Your task to perform on an android device: install app "Grab" Image 0: 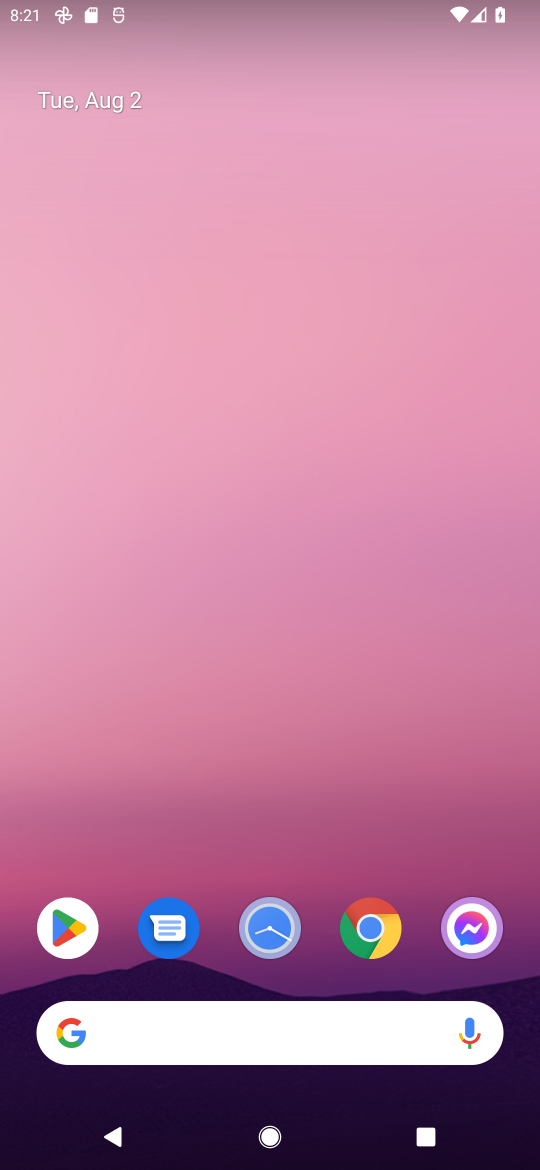
Step 0: click (51, 925)
Your task to perform on an android device: install app "Grab" Image 1: 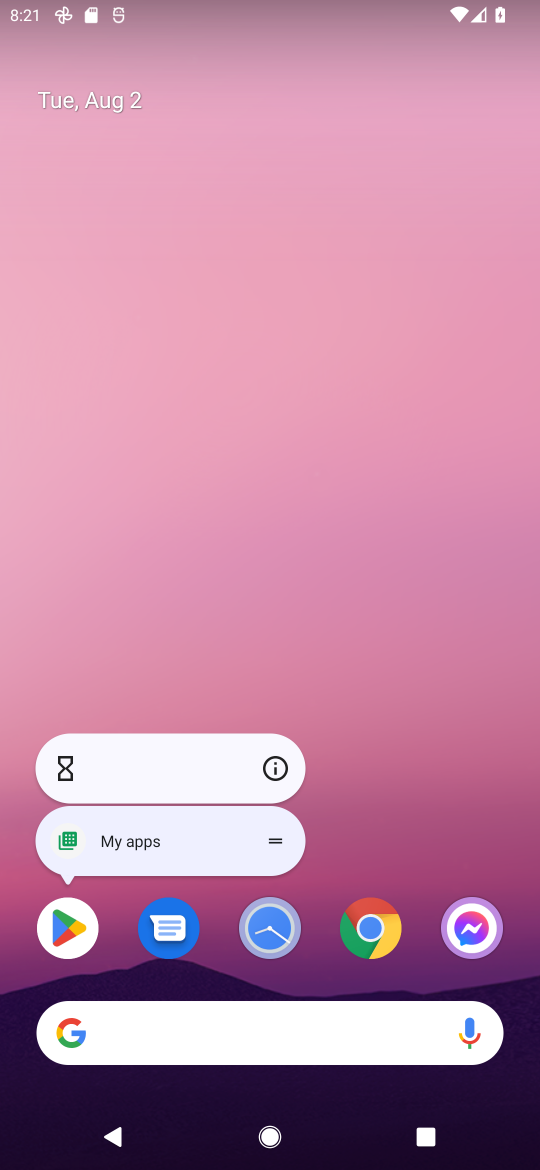
Step 1: click (51, 925)
Your task to perform on an android device: install app "Grab" Image 2: 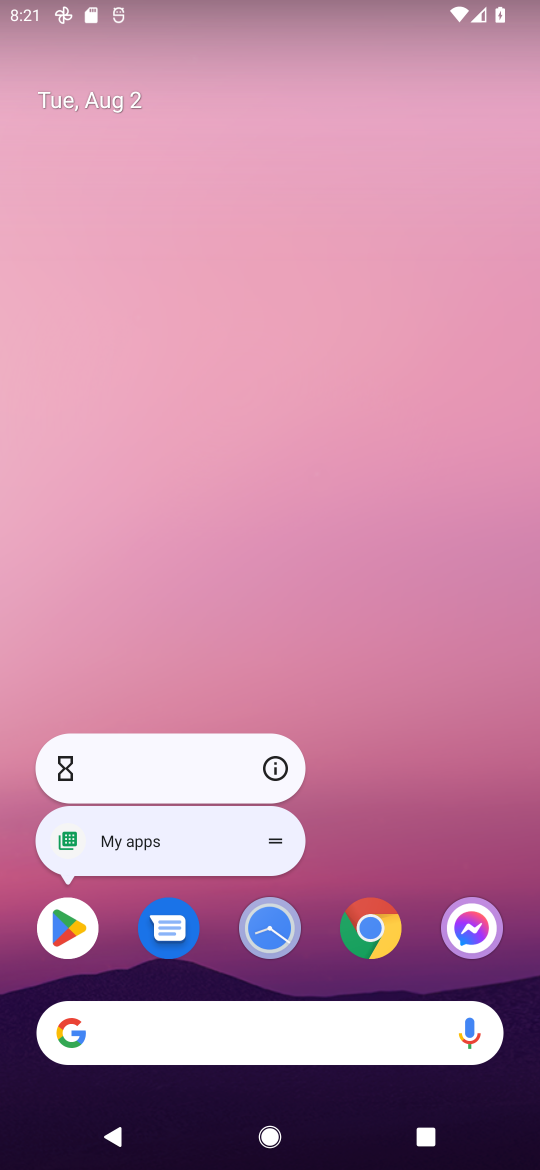
Step 2: click (51, 925)
Your task to perform on an android device: install app "Grab" Image 3: 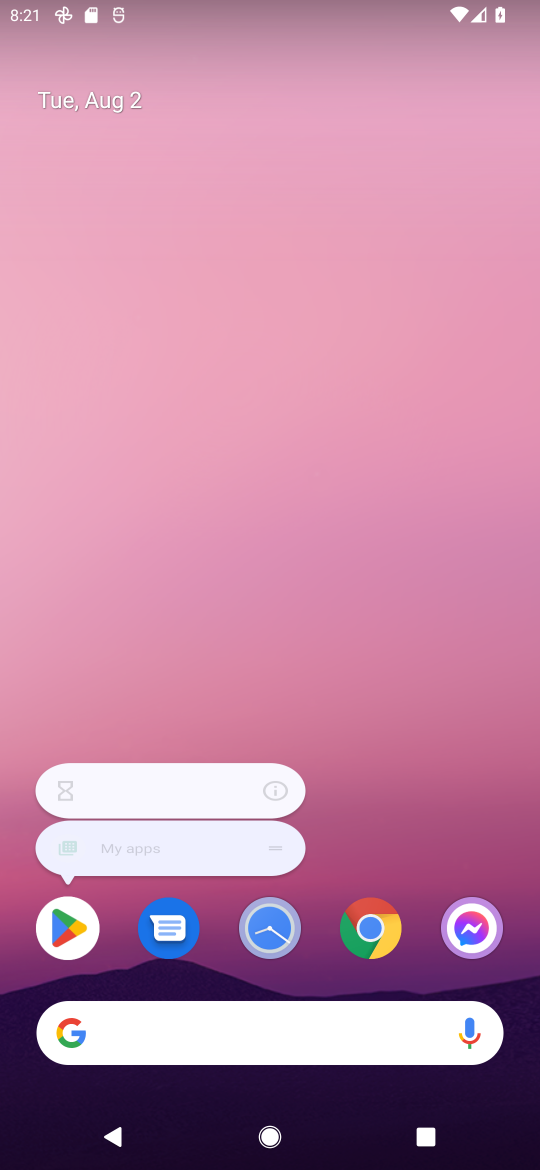
Step 3: click (51, 925)
Your task to perform on an android device: install app "Grab" Image 4: 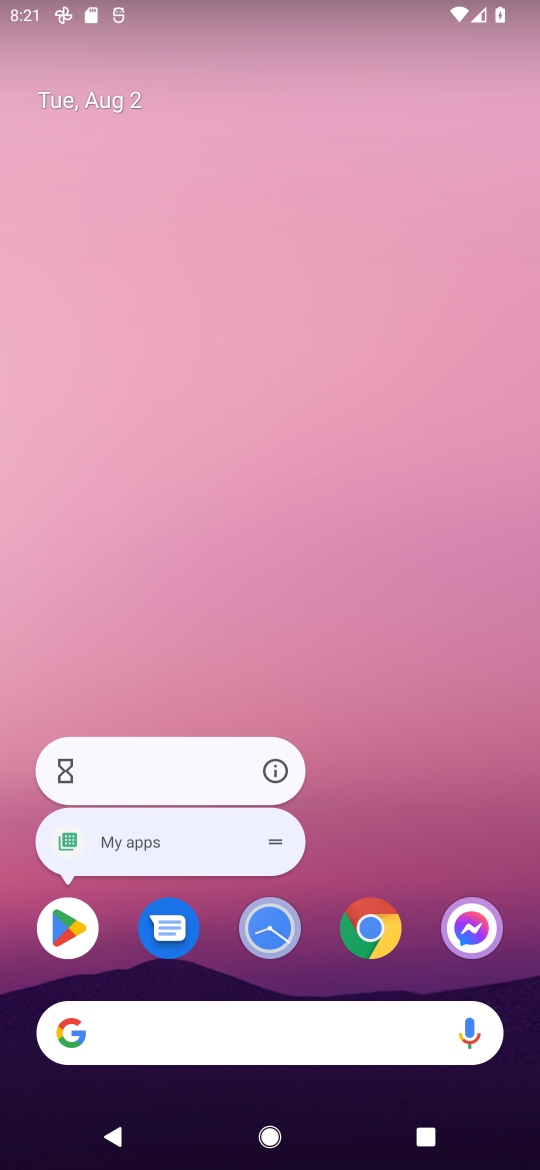
Step 4: click (51, 925)
Your task to perform on an android device: install app "Grab" Image 5: 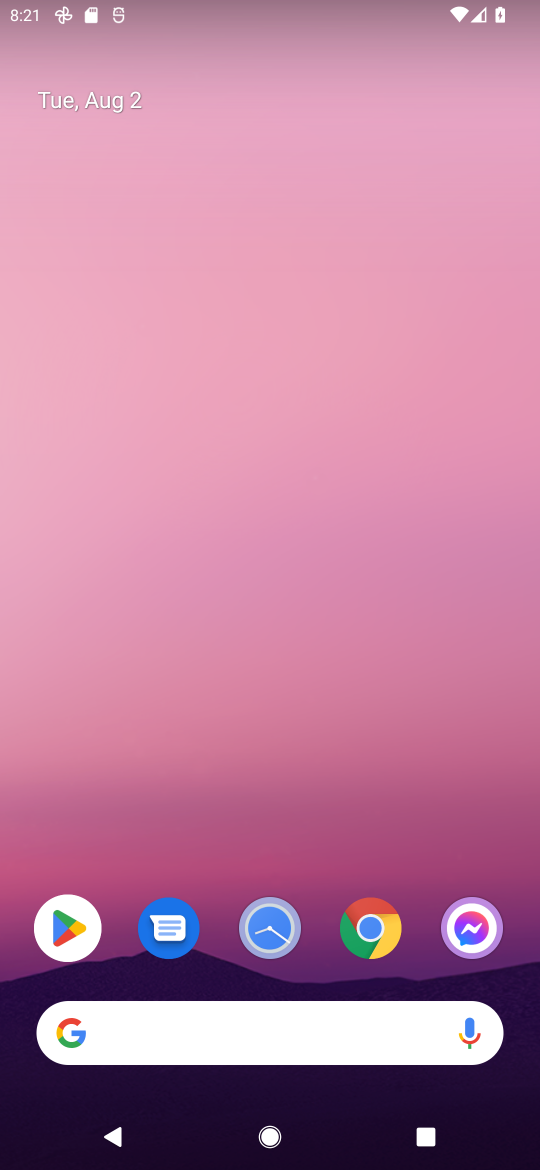
Step 5: click (51, 925)
Your task to perform on an android device: install app "Grab" Image 6: 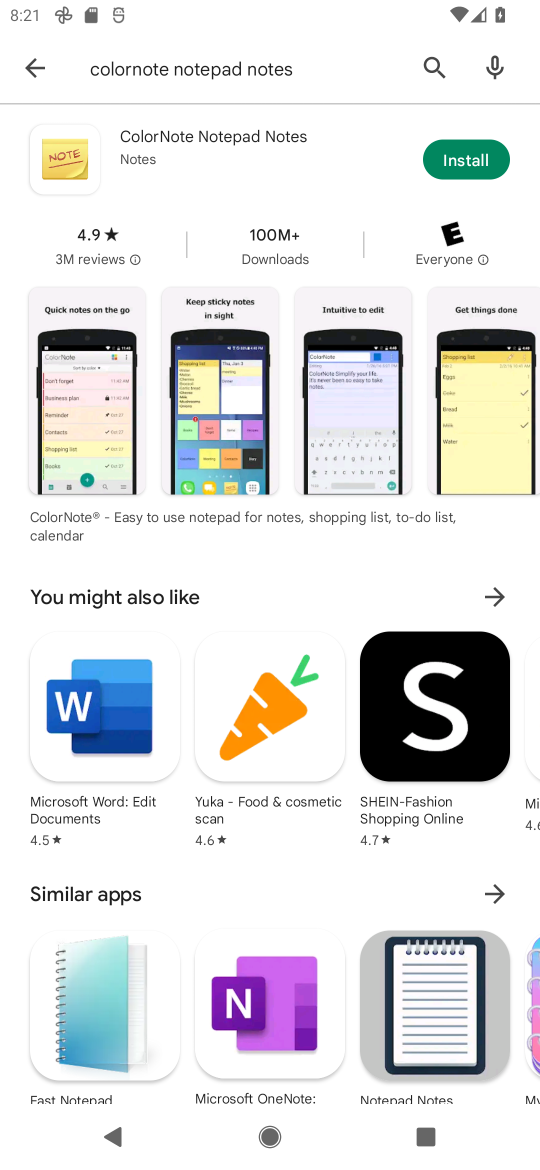
Step 6: click (427, 67)
Your task to perform on an android device: install app "Grab" Image 7: 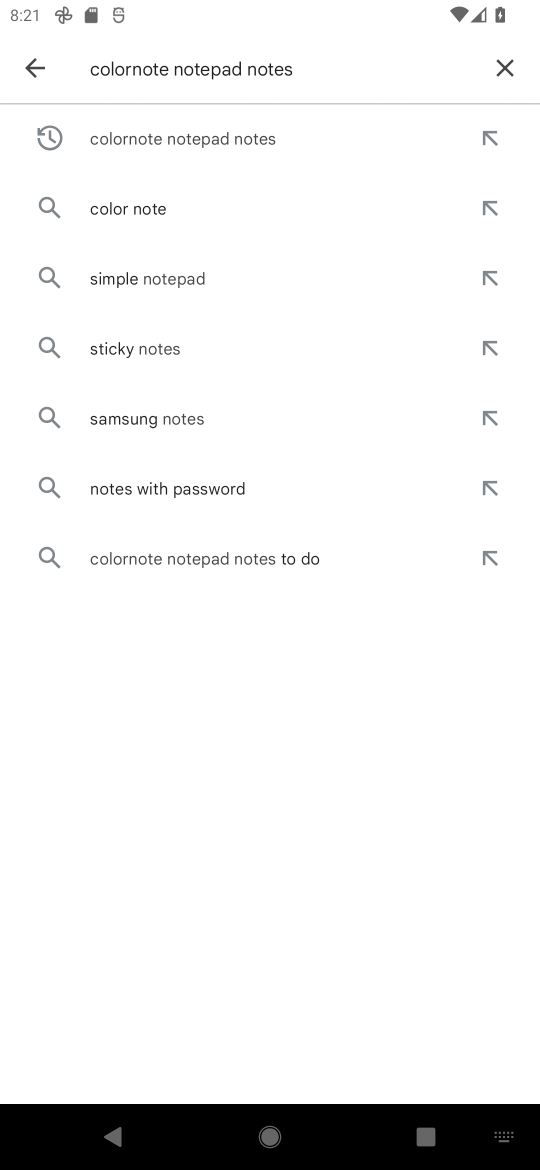
Step 7: click (510, 71)
Your task to perform on an android device: install app "Grab" Image 8: 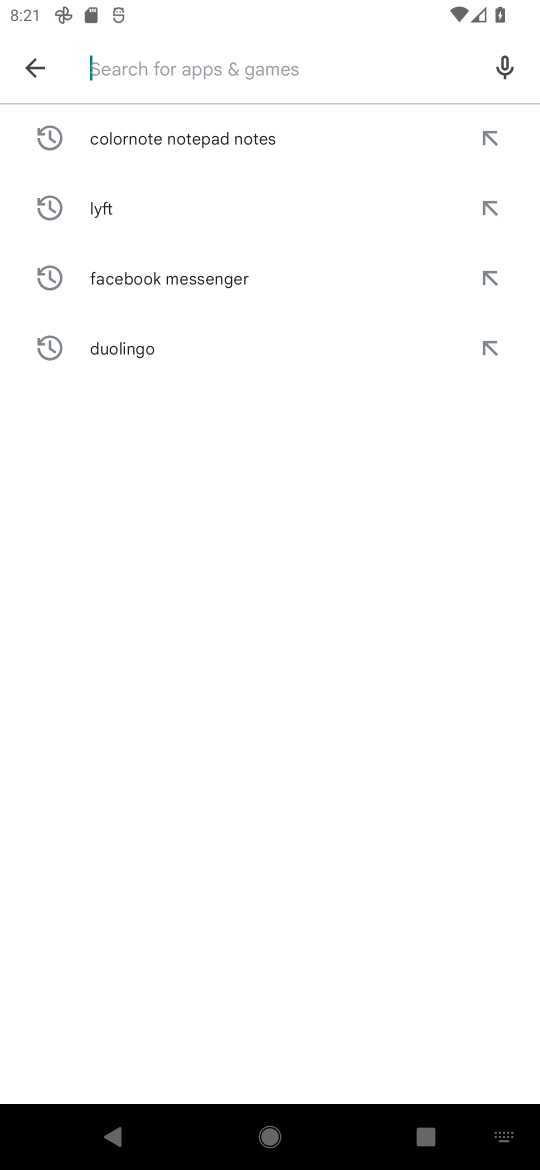
Step 8: type "grab"
Your task to perform on an android device: install app "Grab" Image 9: 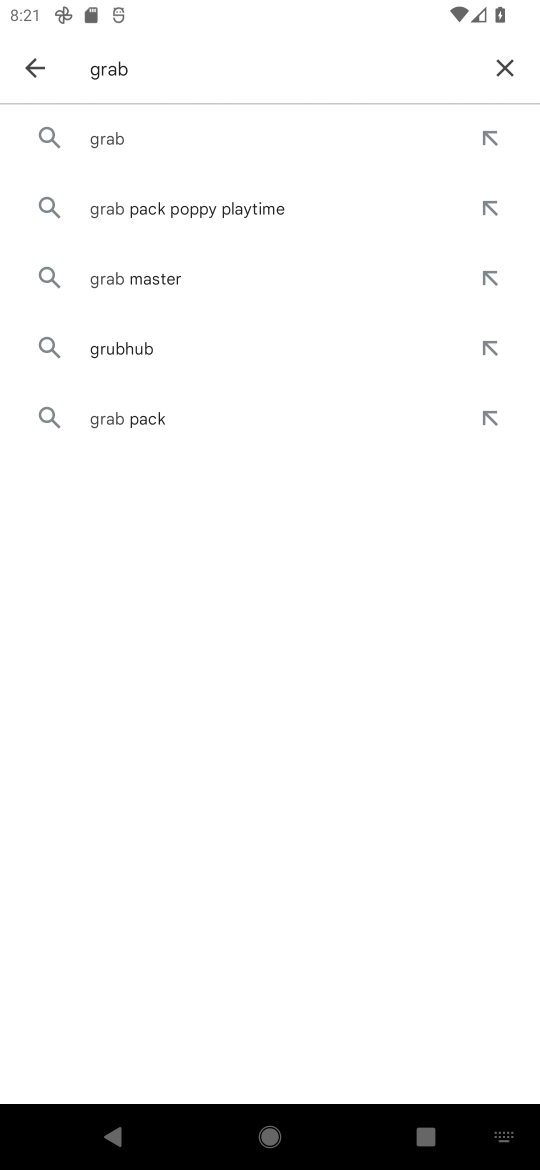
Step 9: click (226, 147)
Your task to perform on an android device: install app "Grab" Image 10: 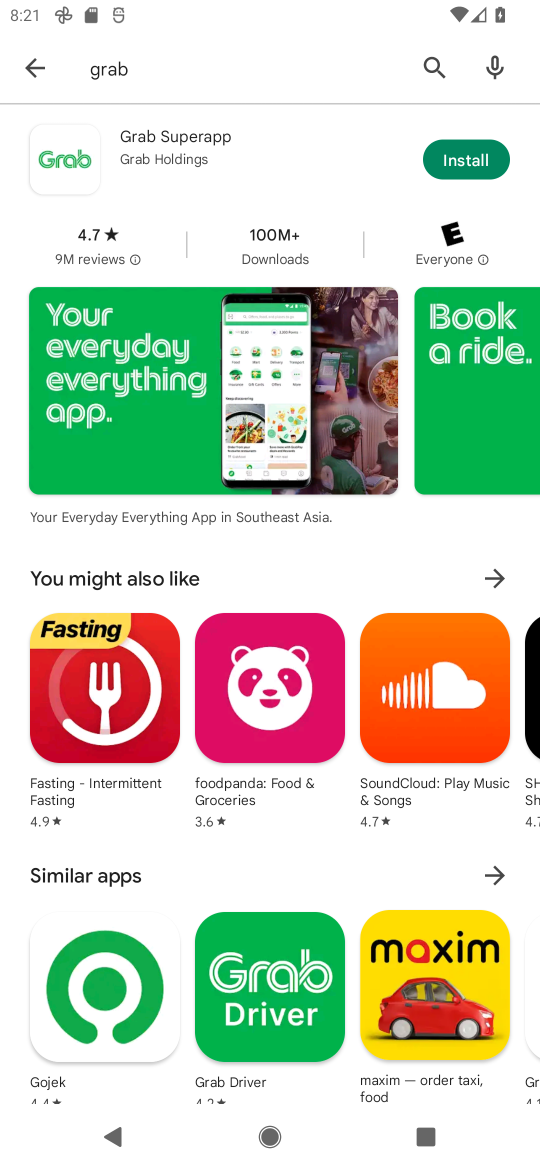
Step 10: click (471, 144)
Your task to perform on an android device: install app "Grab" Image 11: 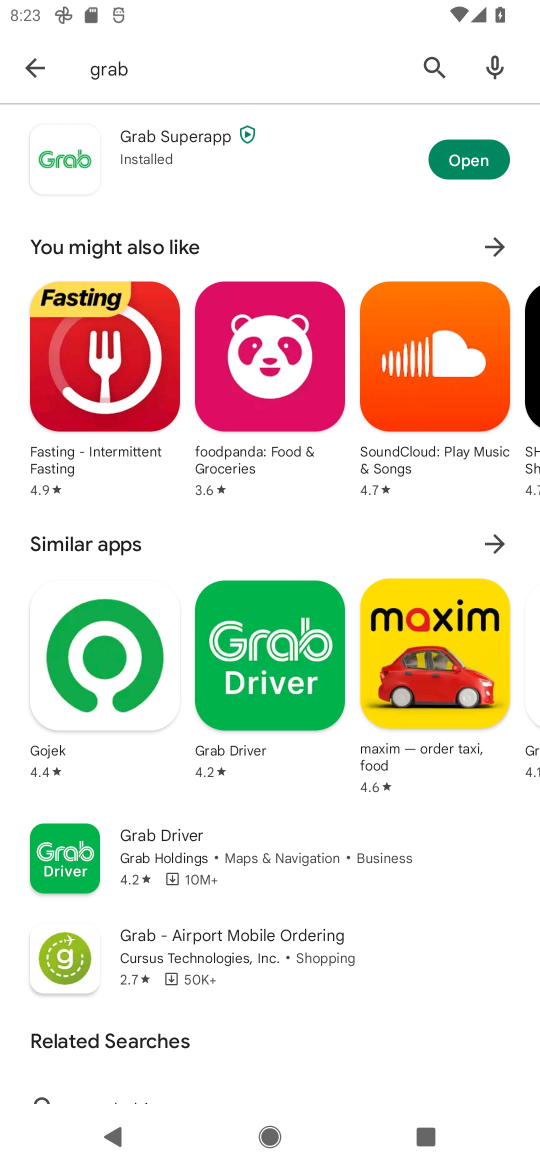
Step 11: task complete